Your task to perform on an android device: Go to calendar. Show me events next week Image 0: 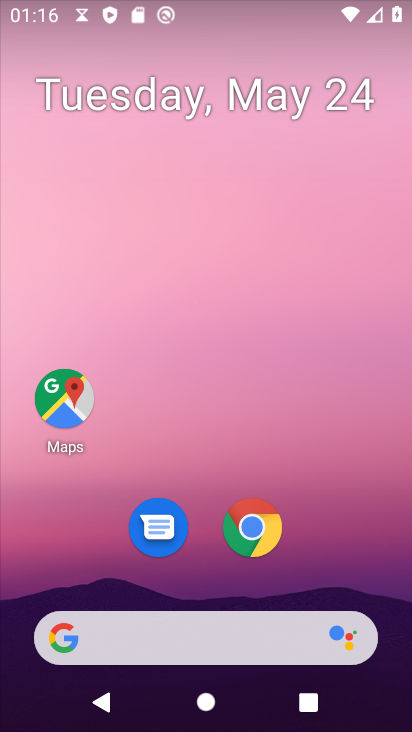
Step 0: press home button
Your task to perform on an android device: Go to calendar. Show me events next week Image 1: 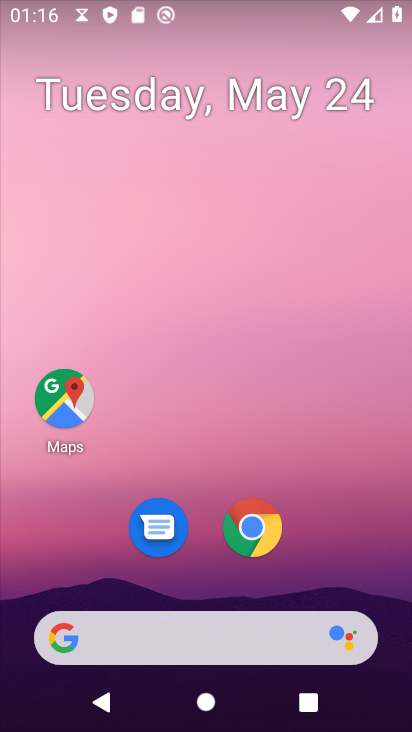
Step 1: drag from (188, 630) to (362, 98)
Your task to perform on an android device: Go to calendar. Show me events next week Image 2: 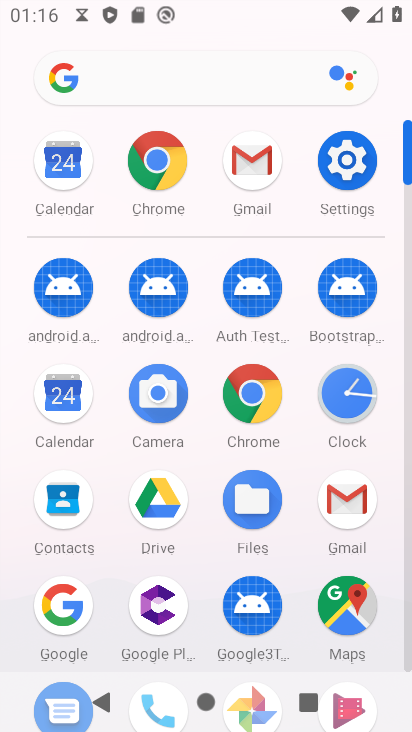
Step 2: click (66, 393)
Your task to perform on an android device: Go to calendar. Show me events next week Image 3: 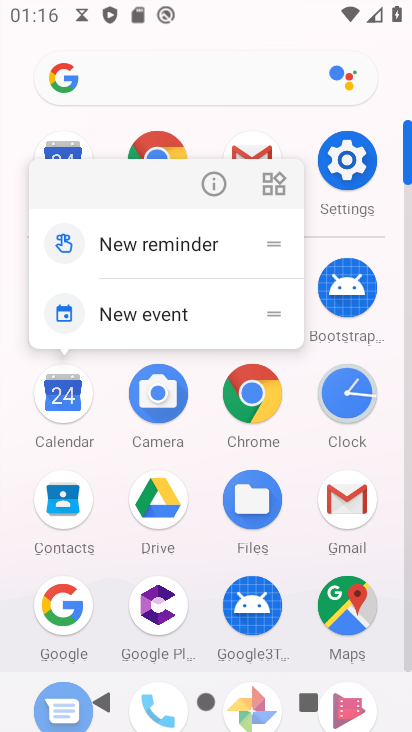
Step 3: click (64, 410)
Your task to perform on an android device: Go to calendar. Show me events next week Image 4: 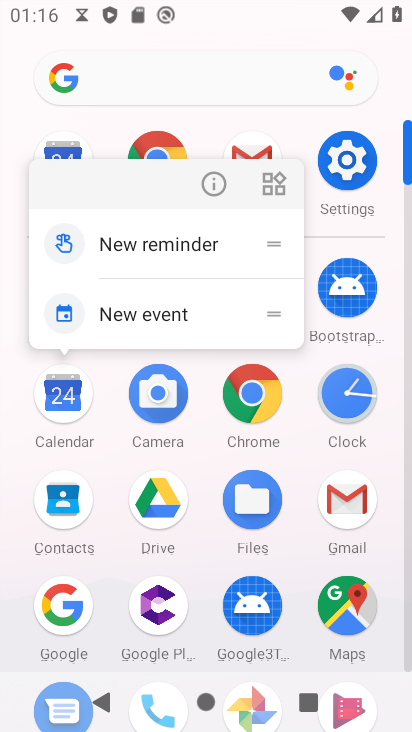
Step 4: click (59, 400)
Your task to perform on an android device: Go to calendar. Show me events next week Image 5: 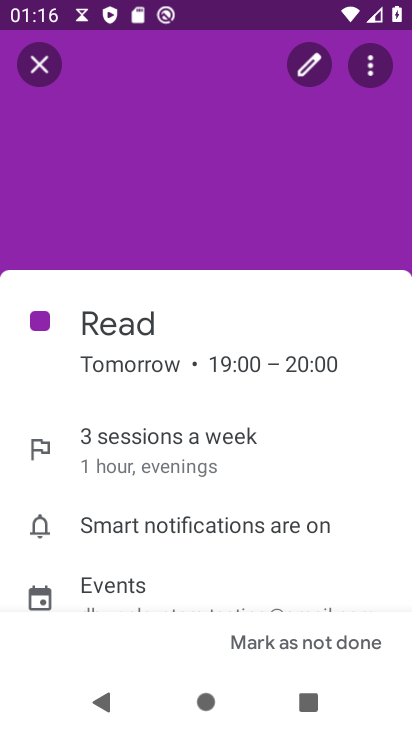
Step 5: click (41, 65)
Your task to perform on an android device: Go to calendar. Show me events next week Image 6: 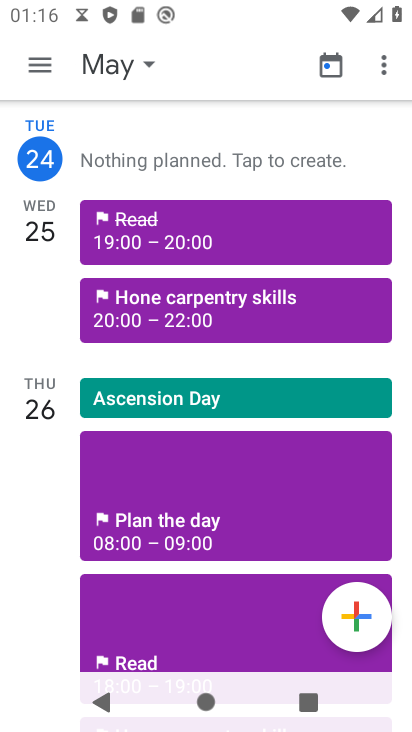
Step 6: click (131, 59)
Your task to perform on an android device: Go to calendar. Show me events next week Image 7: 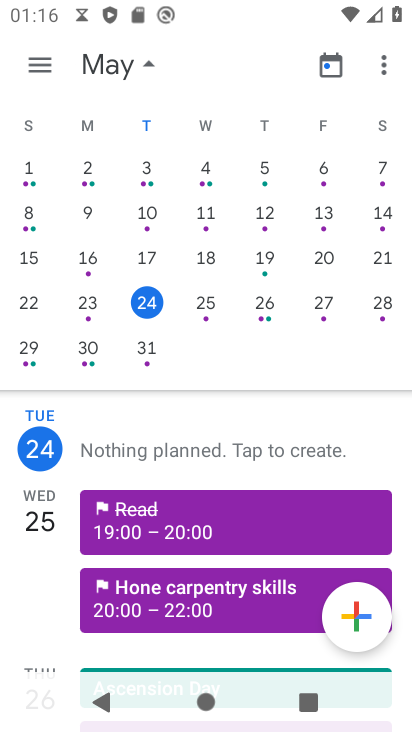
Step 7: click (23, 346)
Your task to perform on an android device: Go to calendar. Show me events next week Image 8: 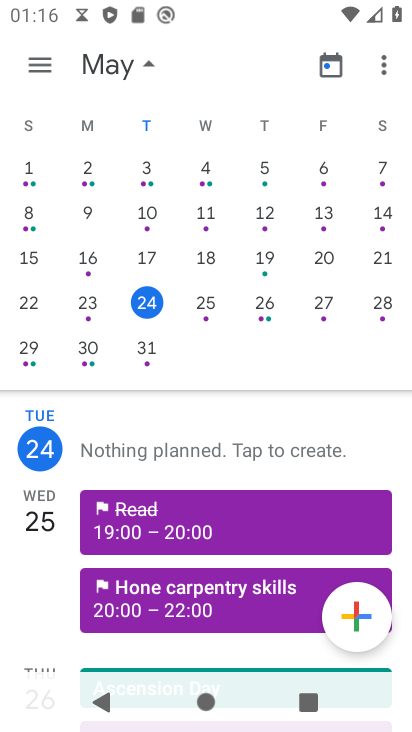
Step 8: click (34, 357)
Your task to perform on an android device: Go to calendar. Show me events next week Image 9: 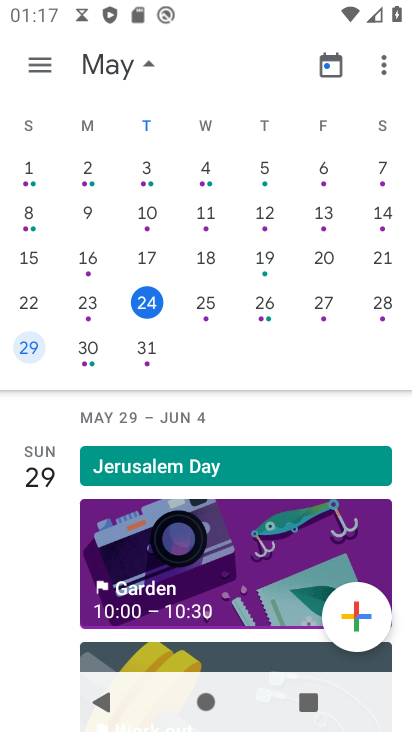
Step 9: click (47, 64)
Your task to perform on an android device: Go to calendar. Show me events next week Image 10: 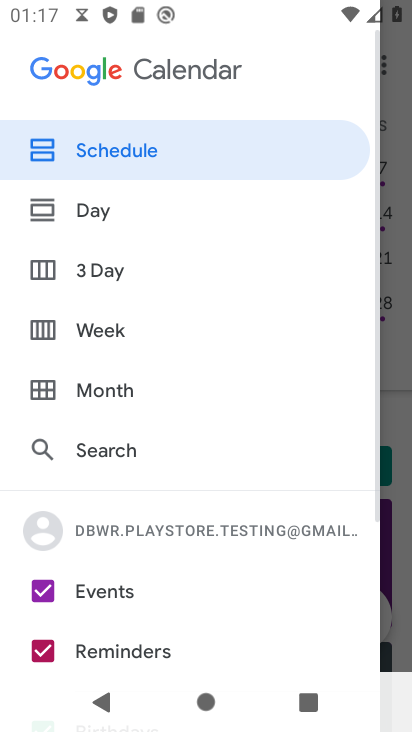
Step 10: click (108, 331)
Your task to perform on an android device: Go to calendar. Show me events next week Image 11: 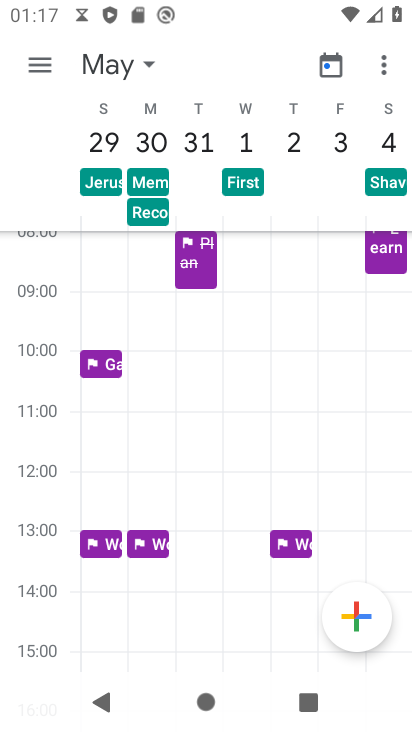
Step 11: click (44, 78)
Your task to perform on an android device: Go to calendar. Show me events next week Image 12: 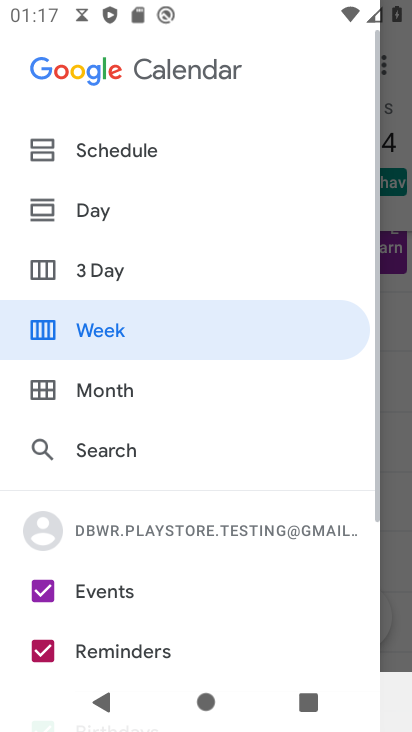
Step 12: click (87, 153)
Your task to perform on an android device: Go to calendar. Show me events next week Image 13: 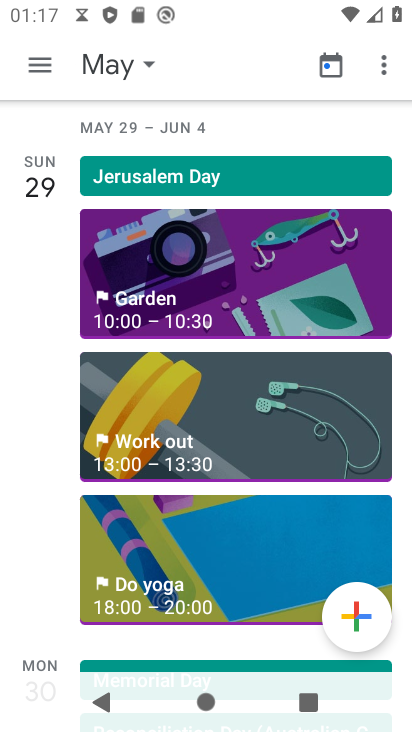
Step 13: click (208, 294)
Your task to perform on an android device: Go to calendar. Show me events next week Image 14: 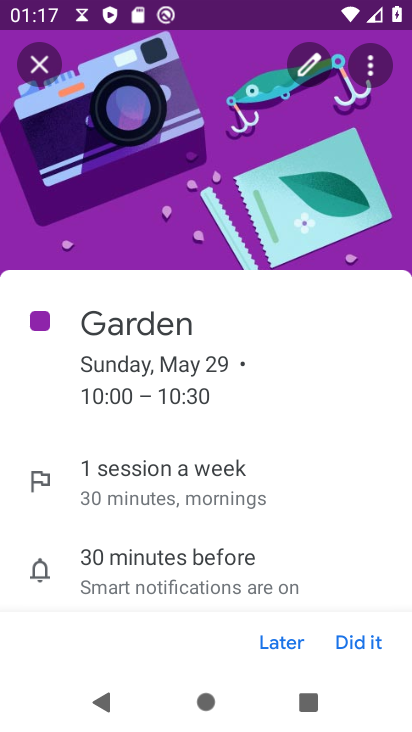
Step 14: task complete